Your task to perform on an android device: Show me the alarms in the clock app Image 0: 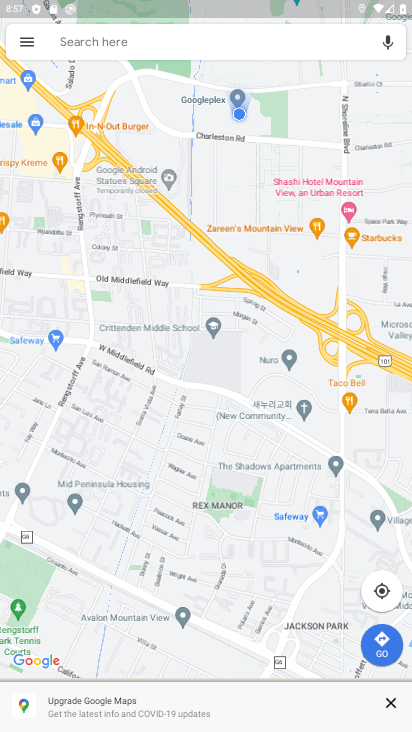
Step 0: press home button
Your task to perform on an android device: Show me the alarms in the clock app Image 1: 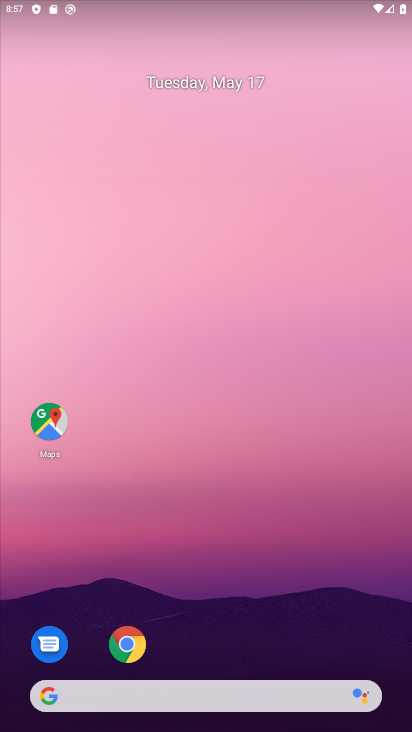
Step 1: drag from (211, 672) to (294, 6)
Your task to perform on an android device: Show me the alarms in the clock app Image 2: 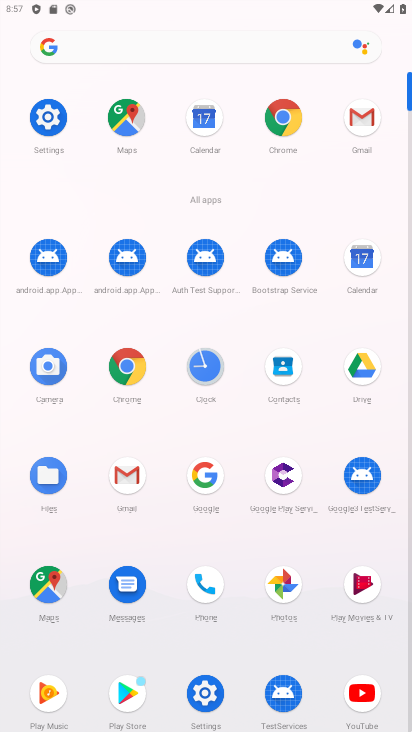
Step 2: click (203, 359)
Your task to perform on an android device: Show me the alarms in the clock app Image 3: 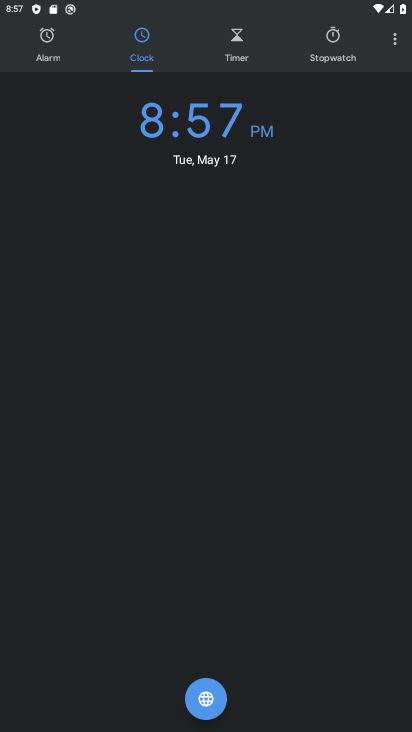
Step 3: click (43, 37)
Your task to perform on an android device: Show me the alarms in the clock app Image 4: 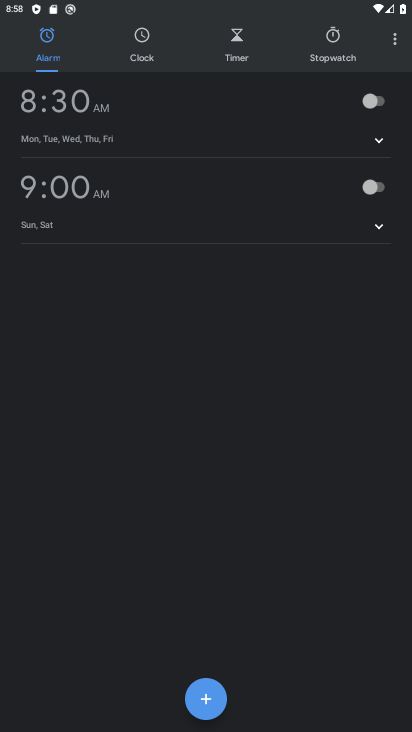
Step 4: click (101, 86)
Your task to perform on an android device: Show me the alarms in the clock app Image 5: 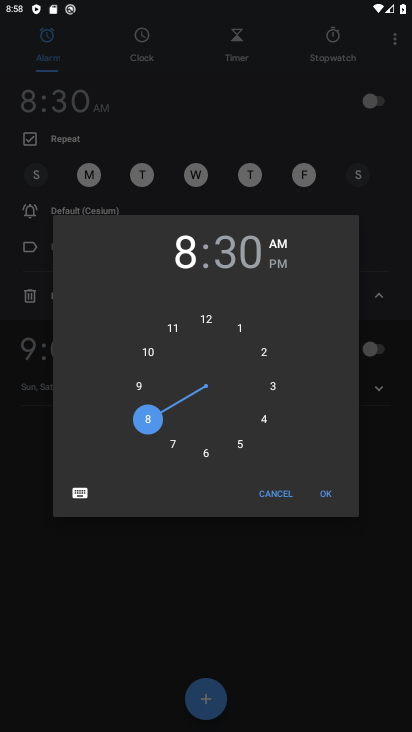
Step 5: click (328, 492)
Your task to perform on an android device: Show me the alarms in the clock app Image 6: 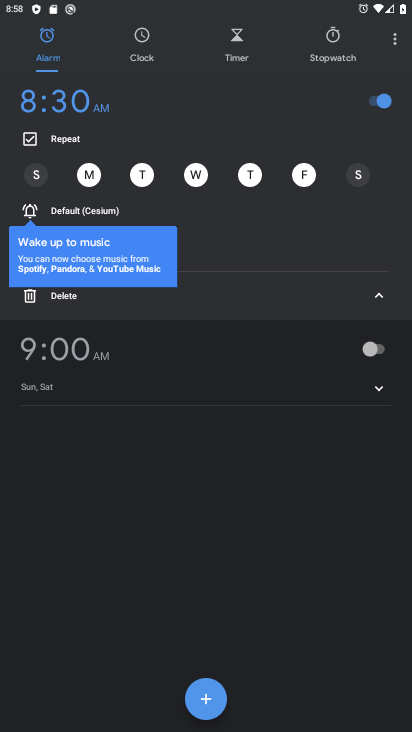
Step 6: task complete